Your task to perform on an android device: clear history in the chrome app Image 0: 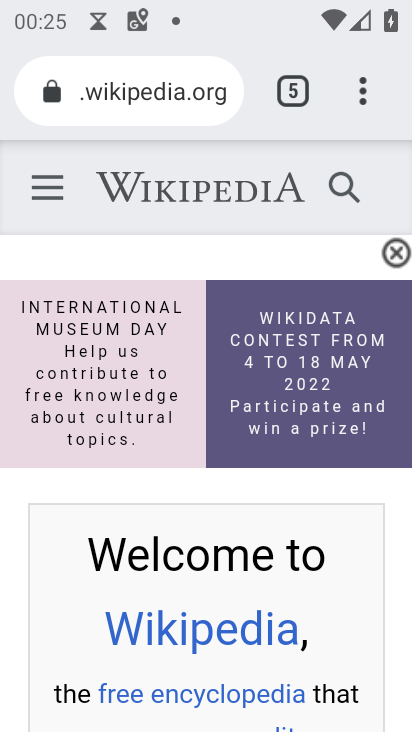
Step 0: click (377, 82)
Your task to perform on an android device: clear history in the chrome app Image 1: 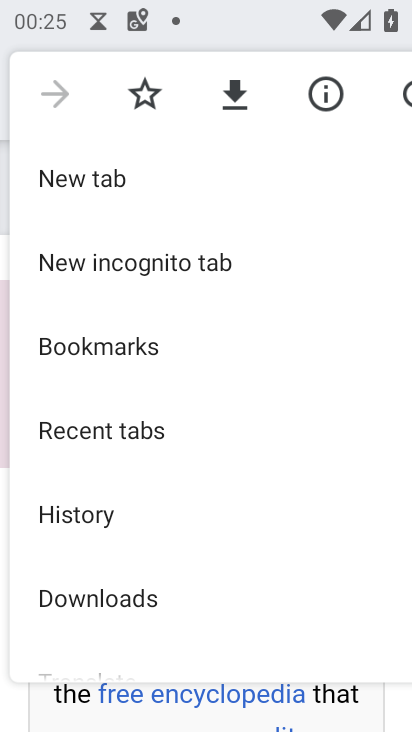
Step 1: click (117, 524)
Your task to perform on an android device: clear history in the chrome app Image 2: 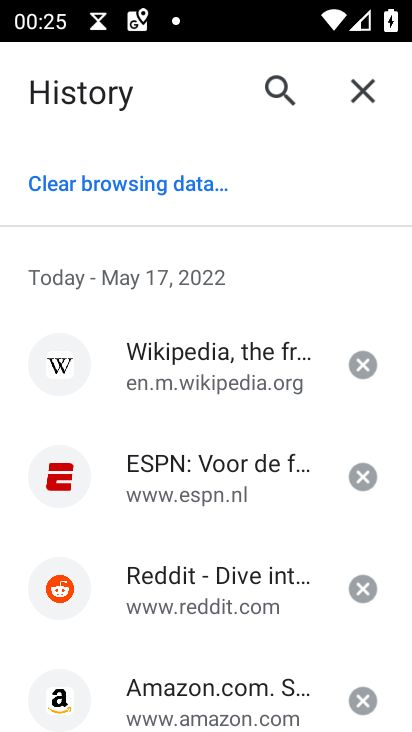
Step 2: click (192, 195)
Your task to perform on an android device: clear history in the chrome app Image 3: 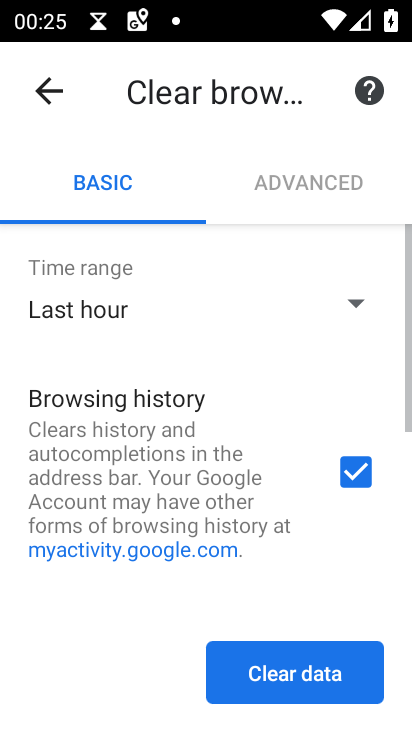
Step 3: click (353, 296)
Your task to perform on an android device: clear history in the chrome app Image 4: 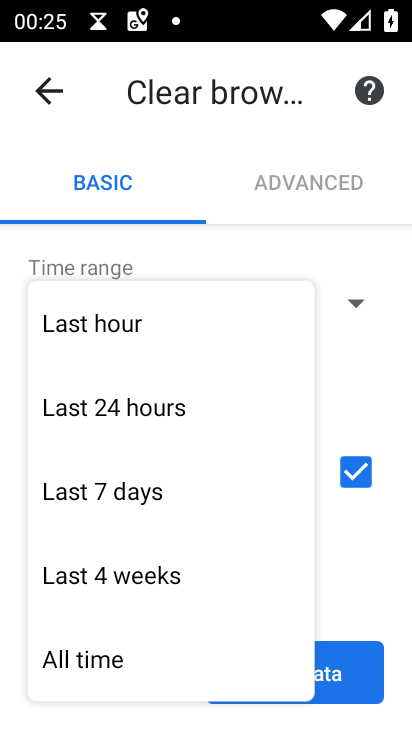
Step 4: click (96, 660)
Your task to perform on an android device: clear history in the chrome app Image 5: 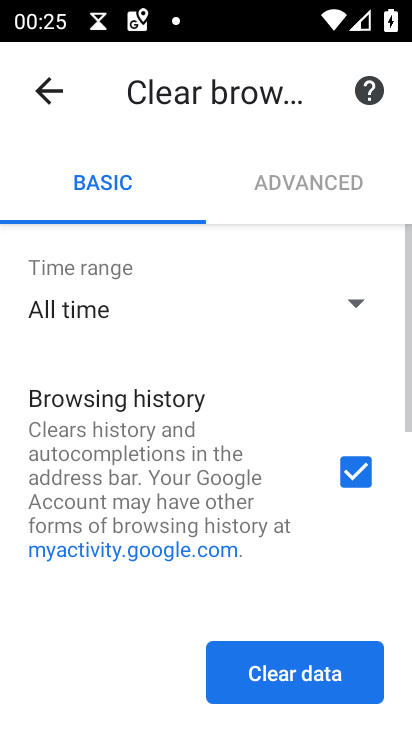
Step 5: click (299, 679)
Your task to perform on an android device: clear history in the chrome app Image 6: 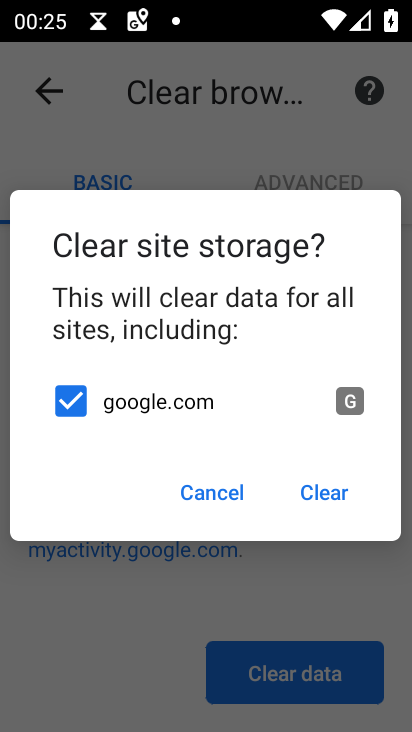
Step 6: click (336, 486)
Your task to perform on an android device: clear history in the chrome app Image 7: 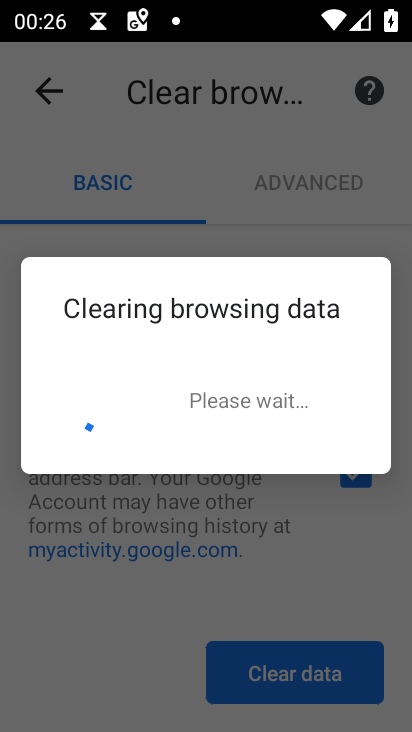
Step 7: click (296, 598)
Your task to perform on an android device: clear history in the chrome app Image 8: 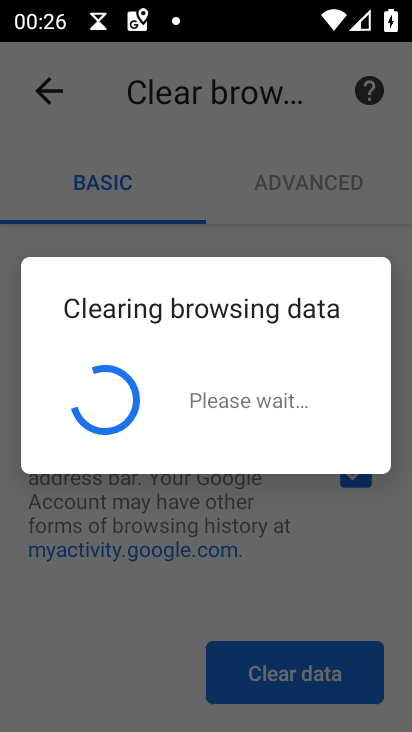
Step 8: click (296, 598)
Your task to perform on an android device: clear history in the chrome app Image 9: 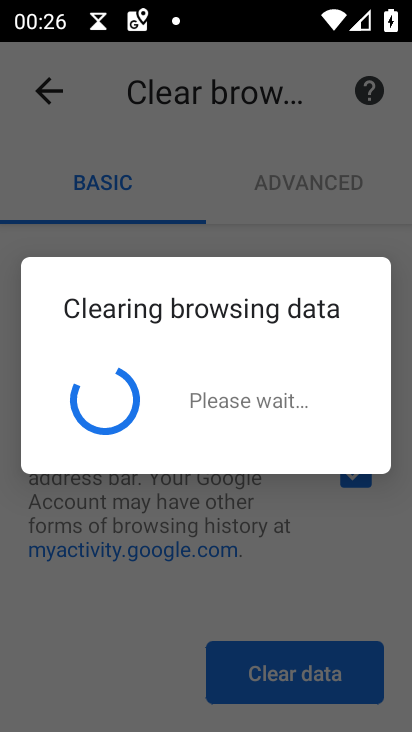
Step 9: click (296, 598)
Your task to perform on an android device: clear history in the chrome app Image 10: 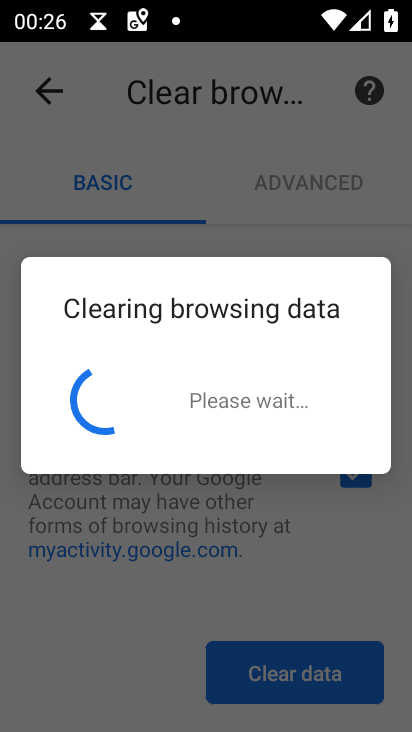
Step 10: click (296, 598)
Your task to perform on an android device: clear history in the chrome app Image 11: 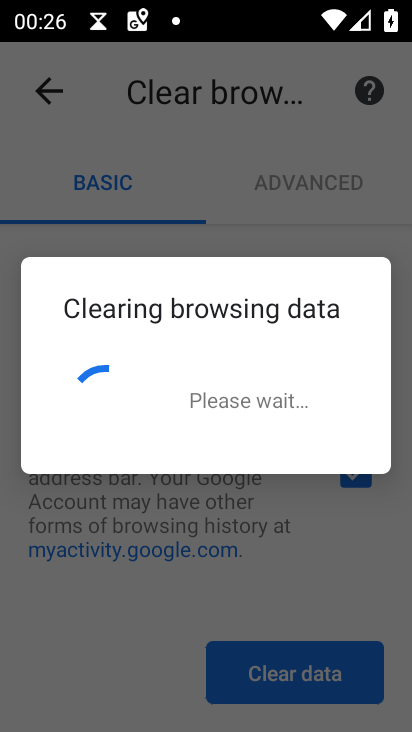
Step 11: click (296, 598)
Your task to perform on an android device: clear history in the chrome app Image 12: 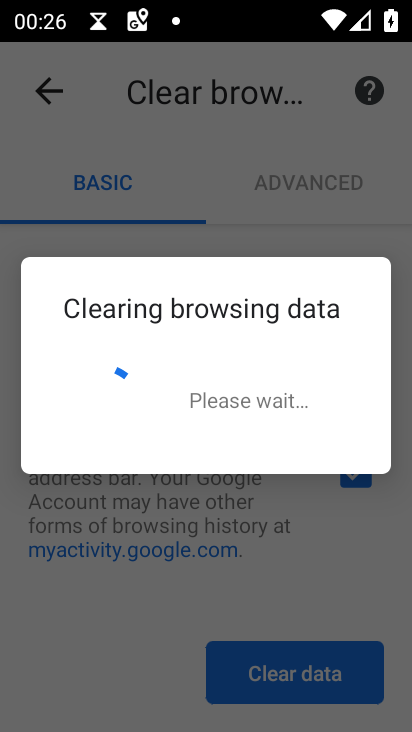
Step 12: click (296, 598)
Your task to perform on an android device: clear history in the chrome app Image 13: 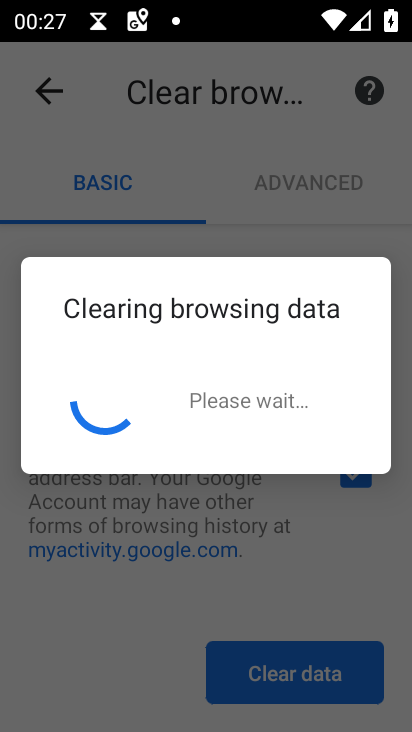
Step 13: task complete